Your task to perform on an android device: Open Google Chrome and open the bookmarks view Image 0: 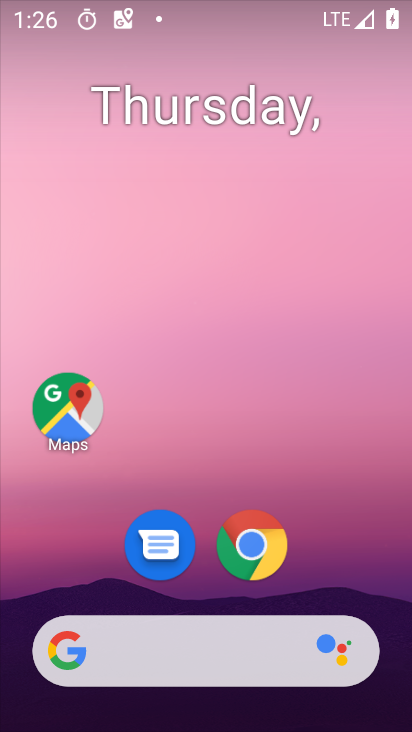
Step 0: drag from (270, 571) to (322, 63)
Your task to perform on an android device: Open Google Chrome and open the bookmarks view Image 1: 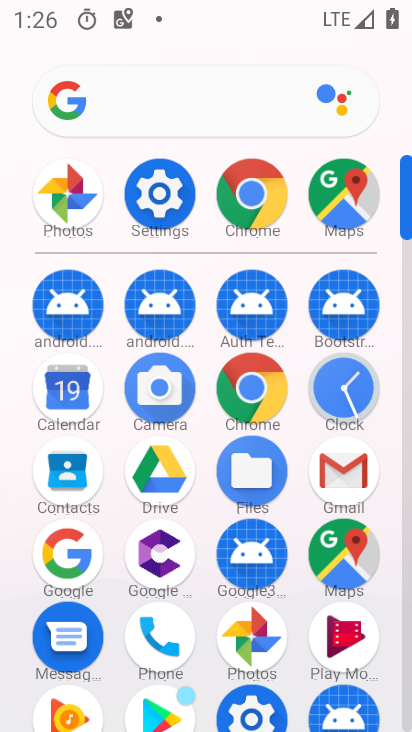
Step 1: click (251, 400)
Your task to perform on an android device: Open Google Chrome and open the bookmarks view Image 2: 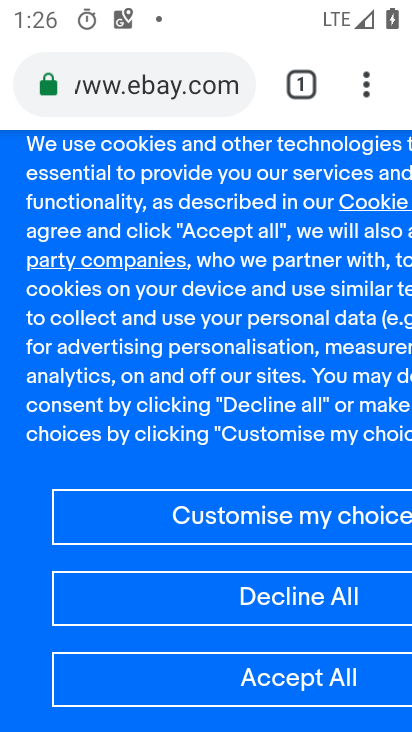
Step 2: task complete